Your task to perform on an android device: turn off smart reply in the gmail app Image 0: 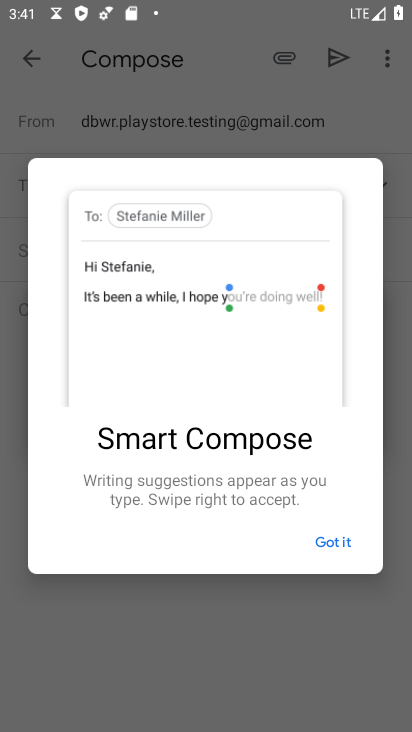
Step 0: press home button
Your task to perform on an android device: turn off smart reply in the gmail app Image 1: 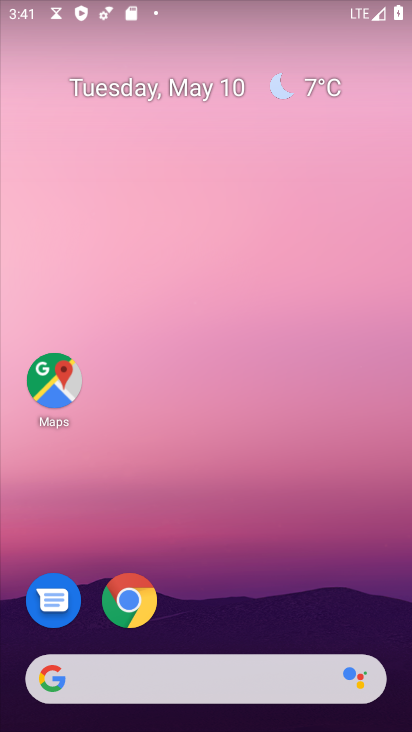
Step 1: drag from (226, 598) to (290, 269)
Your task to perform on an android device: turn off smart reply in the gmail app Image 2: 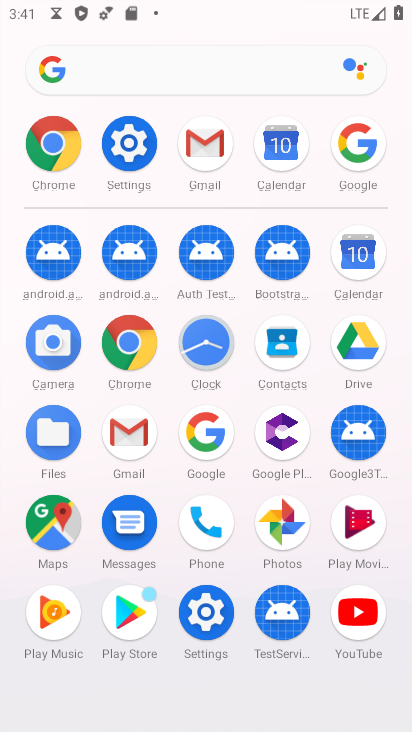
Step 2: click (215, 137)
Your task to perform on an android device: turn off smart reply in the gmail app Image 3: 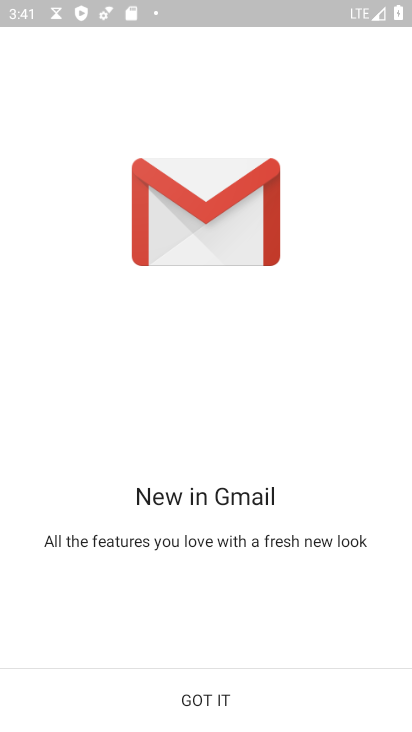
Step 3: task complete